Your task to perform on an android device: turn off picture-in-picture Image 0: 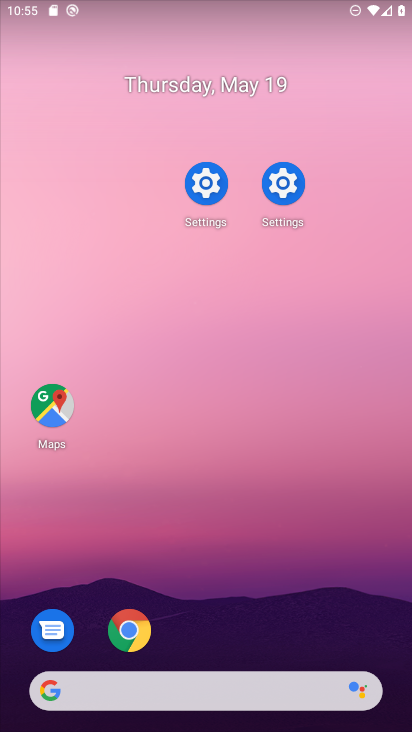
Step 0: drag from (279, 680) to (177, 180)
Your task to perform on an android device: turn off picture-in-picture Image 1: 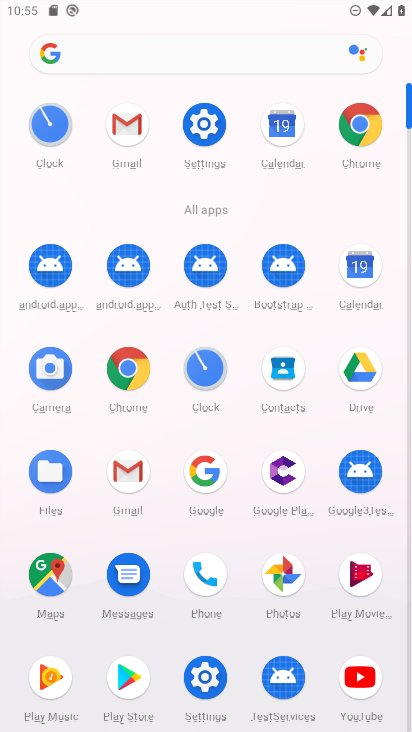
Step 1: click (357, 129)
Your task to perform on an android device: turn off picture-in-picture Image 2: 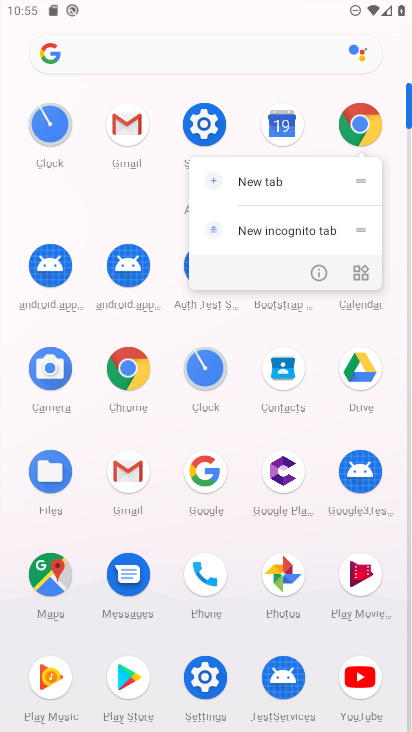
Step 2: click (327, 267)
Your task to perform on an android device: turn off picture-in-picture Image 3: 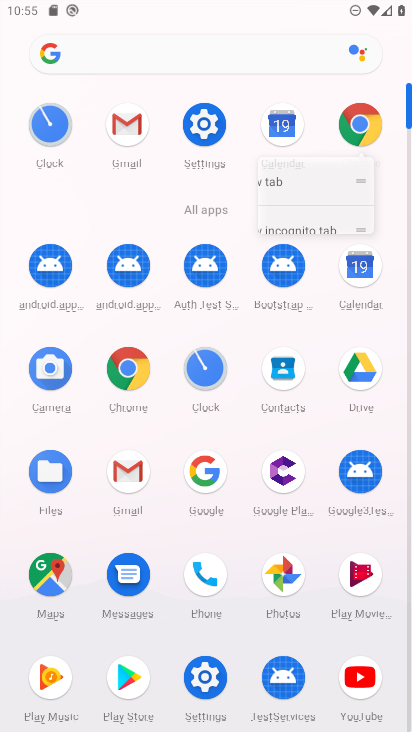
Step 3: click (325, 267)
Your task to perform on an android device: turn off picture-in-picture Image 4: 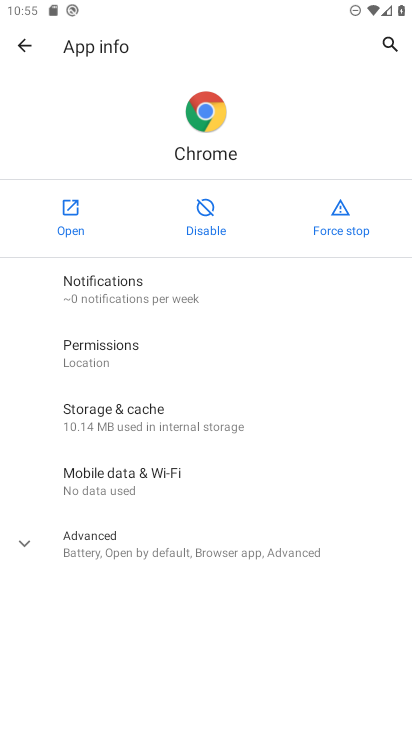
Step 4: drag from (204, 383) to (150, 173)
Your task to perform on an android device: turn off picture-in-picture Image 5: 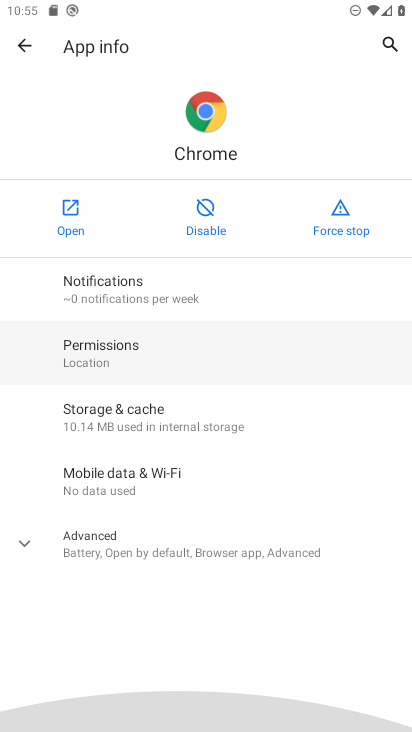
Step 5: drag from (159, 429) to (109, 85)
Your task to perform on an android device: turn off picture-in-picture Image 6: 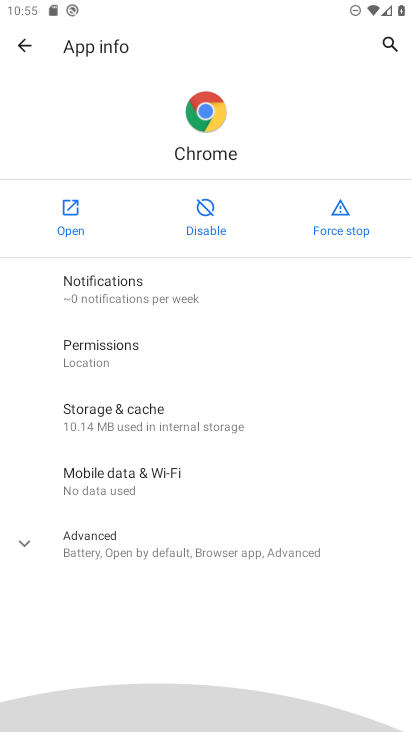
Step 6: drag from (114, 454) to (130, 186)
Your task to perform on an android device: turn off picture-in-picture Image 7: 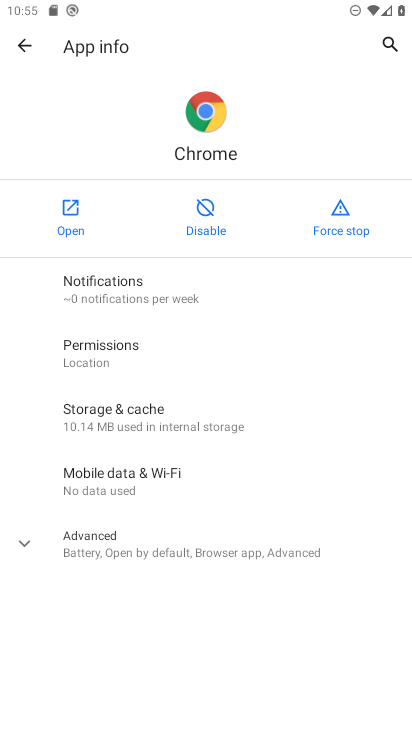
Step 7: click (106, 547)
Your task to perform on an android device: turn off picture-in-picture Image 8: 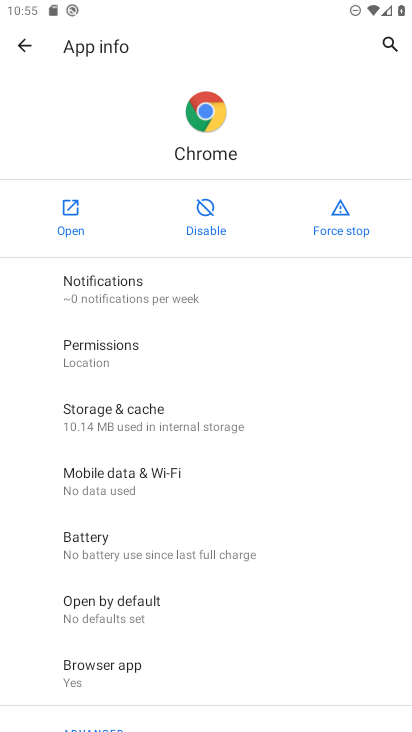
Step 8: drag from (138, 572) to (124, 237)
Your task to perform on an android device: turn off picture-in-picture Image 9: 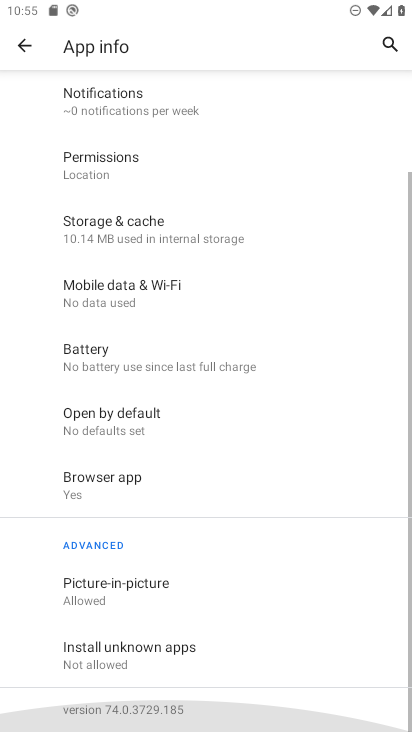
Step 9: drag from (156, 488) to (127, 223)
Your task to perform on an android device: turn off picture-in-picture Image 10: 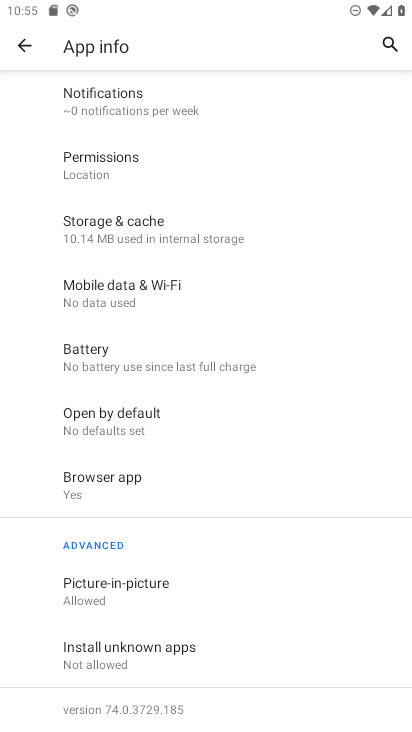
Step 10: click (108, 570)
Your task to perform on an android device: turn off picture-in-picture Image 11: 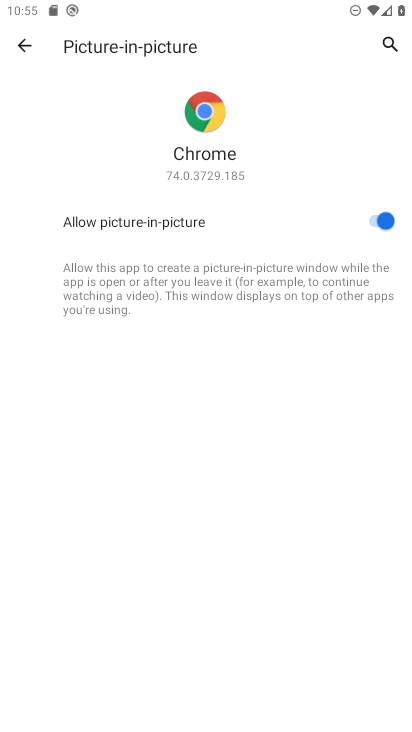
Step 11: click (80, 605)
Your task to perform on an android device: turn off picture-in-picture Image 12: 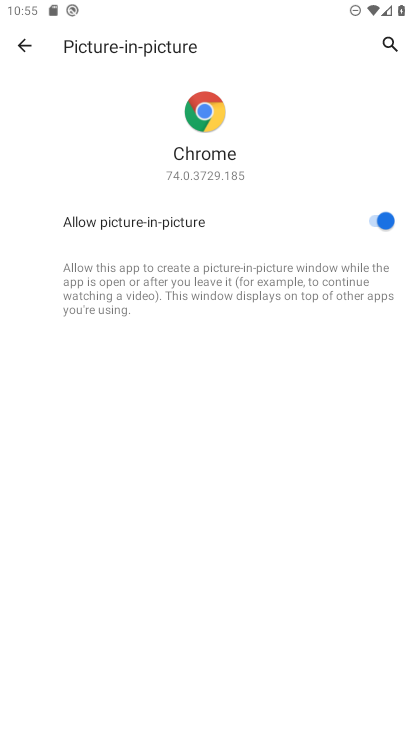
Step 12: click (383, 215)
Your task to perform on an android device: turn off picture-in-picture Image 13: 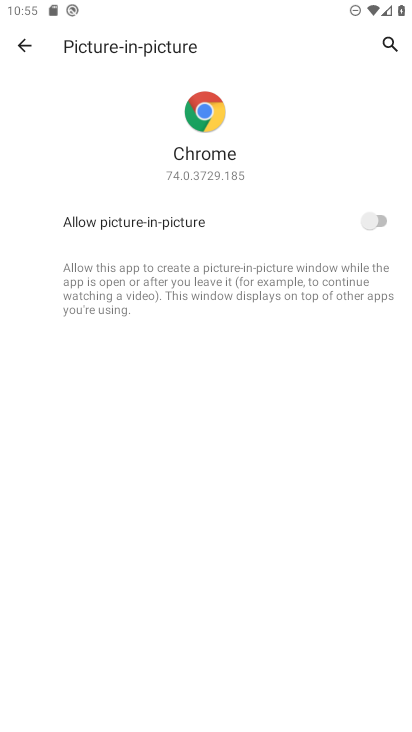
Step 13: task complete